Your task to perform on an android device: check the backup settings in the google photos Image 0: 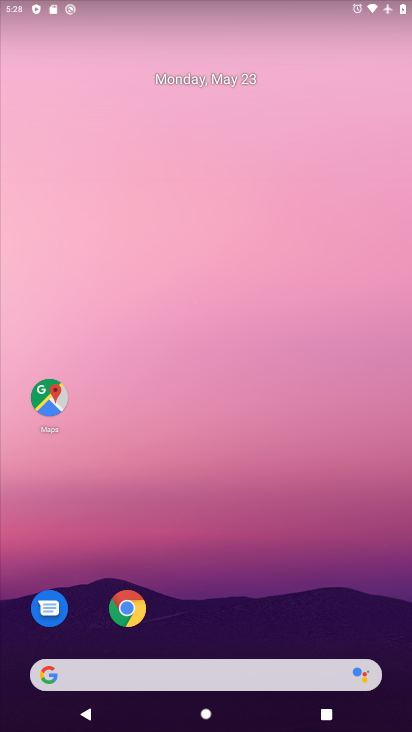
Step 0: drag from (222, 644) to (256, 269)
Your task to perform on an android device: check the backup settings in the google photos Image 1: 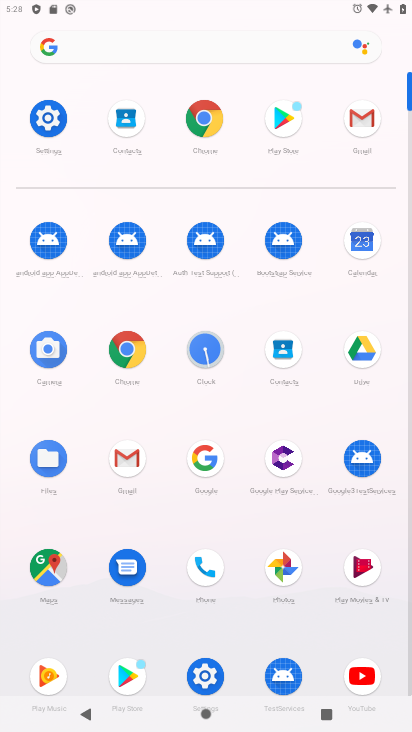
Step 1: click (289, 576)
Your task to perform on an android device: check the backup settings in the google photos Image 2: 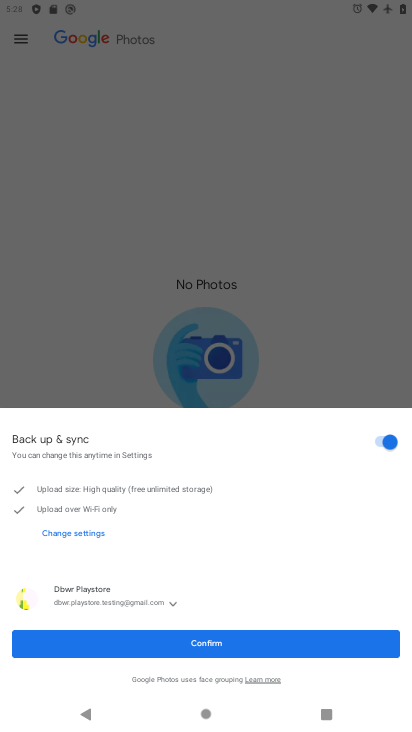
Step 2: click (249, 644)
Your task to perform on an android device: check the backup settings in the google photos Image 3: 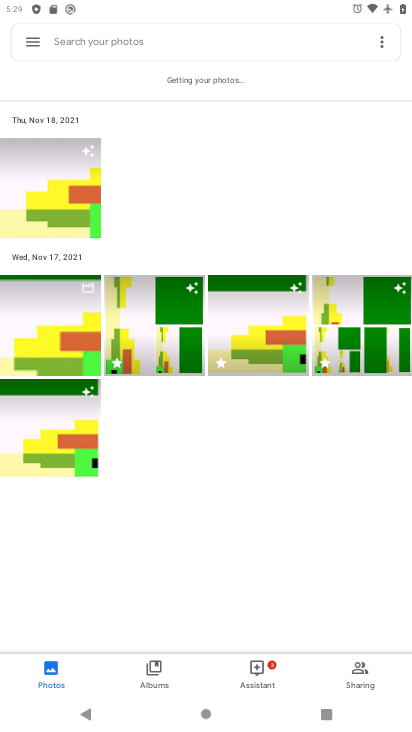
Step 3: click (29, 64)
Your task to perform on an android device: check the backup settings in the google photos Image 4: 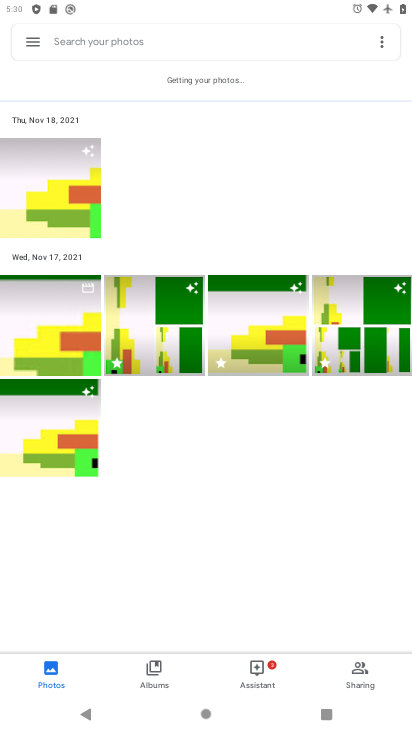
Step 4: click (35, 44)
Your task to perform on an android device: check the backup settings in the google photos Image 5: 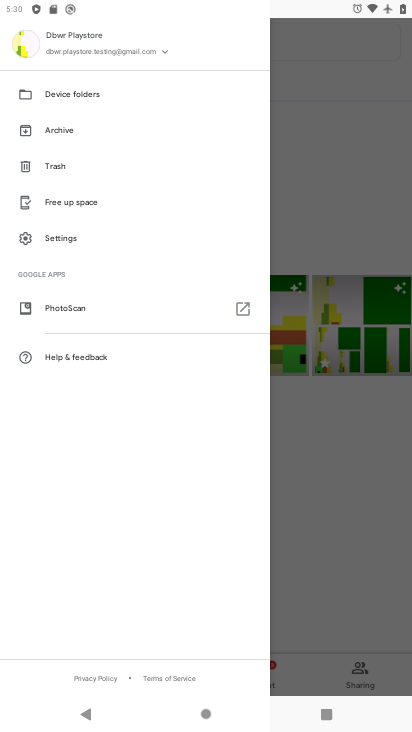
Step 5: click (59, 240)
Your task to perform on an android device: check the backup settings in the google photos Image 6: 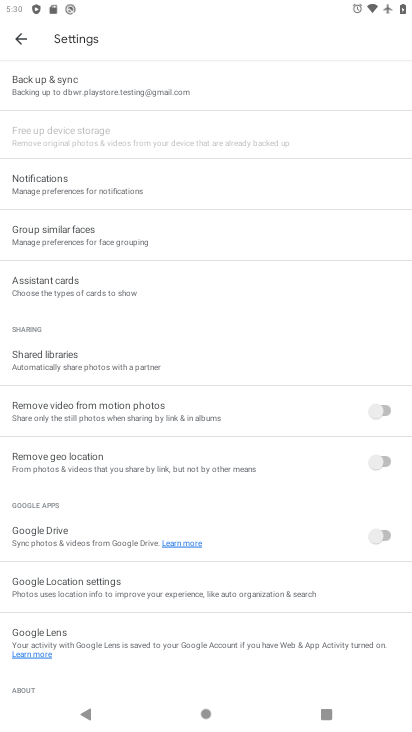
Step 6: click (70, 100)
Your task to perform on an android device: check the backup settings in the google photos Image 7: 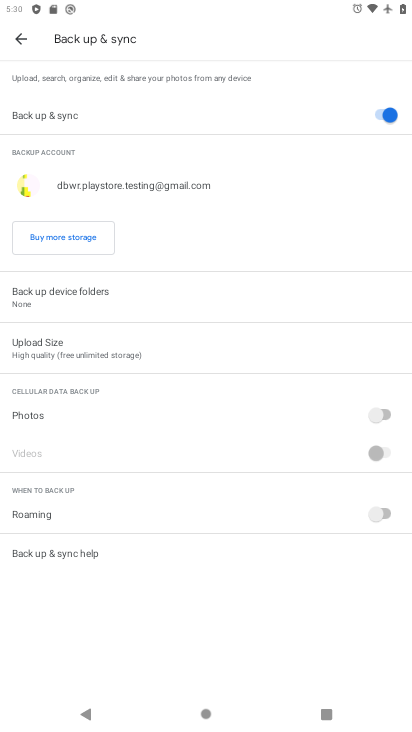
Step 7: task complete